Your task to perform on an android device: toggle wifi Image 0: 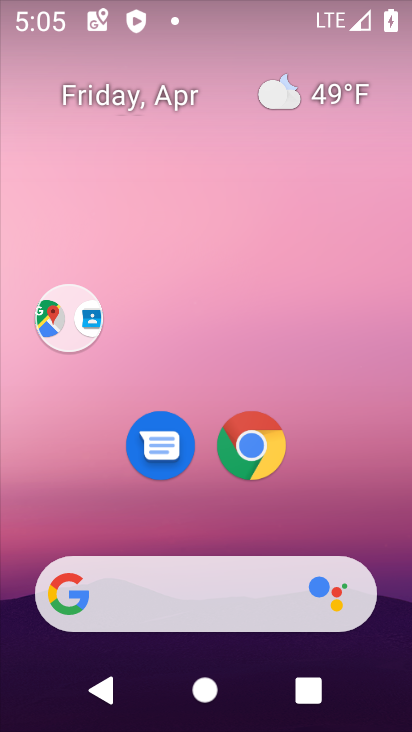
Step 0: drag from (331, 478) to (353, 86)
Your task to perform on an android device: toggle wifi Image 1: 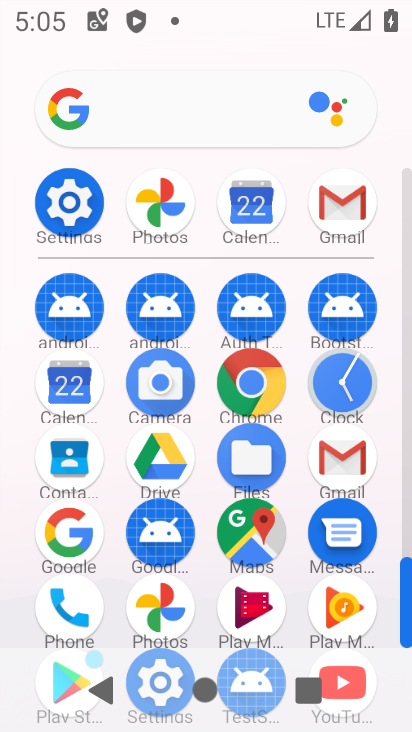
Step 1: drag from (198, 573) to (214, 373)
Your task to perform on an android device: toggle wifi Image 2: 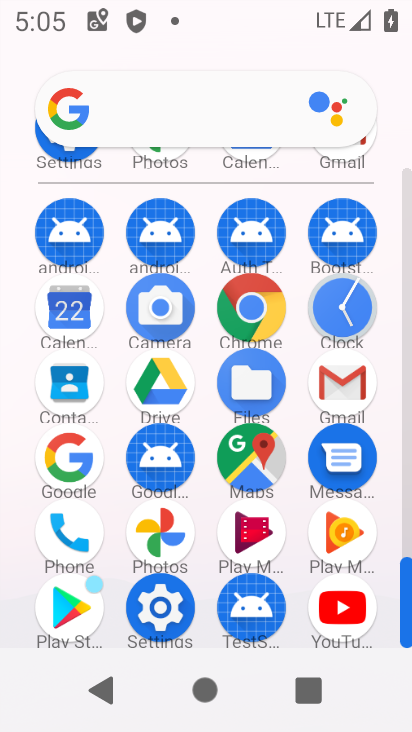
Step 2: click (166, 616)
Your task to perform on an android device: toggle wifi Image 3: 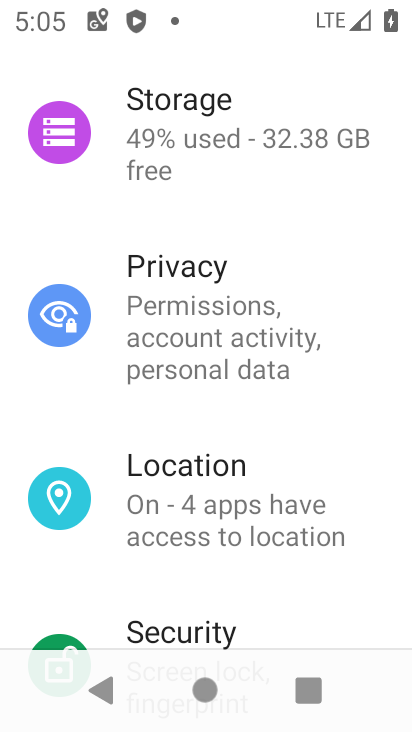
Step 3: drag from (273, 204) to (194, 556)
Your task to perform on an android device: toggle wifi Image 4: 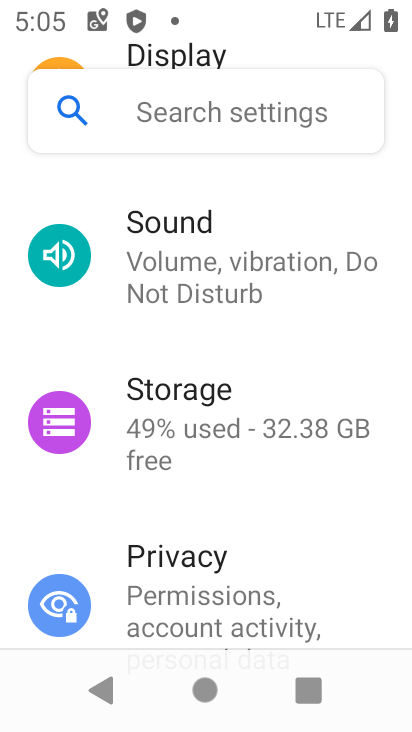
Step 4: drag from (231, 271) to (223, 495)
Your task to perform on an android device: toggle wifi Image 5: 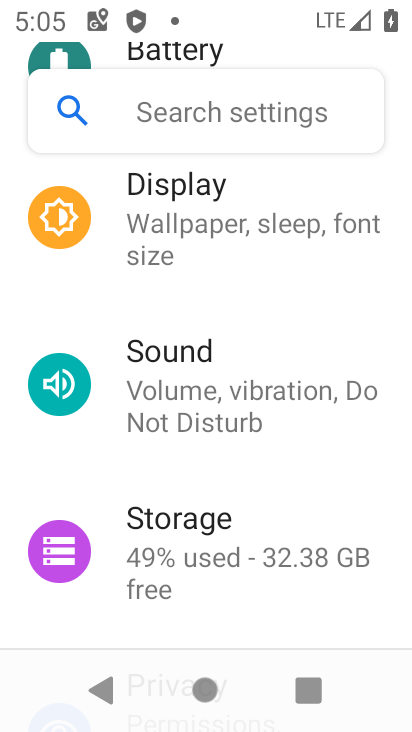
Step 5: drag from (269, 186) to (244, 438)
Your task to perform on an android device: toggle wifi Image 6: 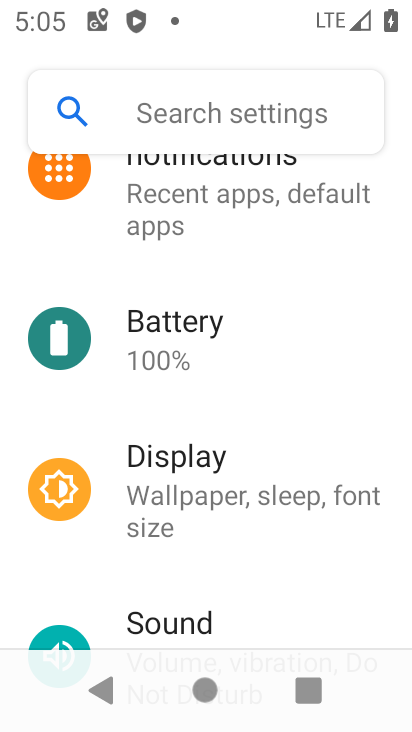
Step 6: drag from (233, 223) to (213, 455)
Your task to perform on an android device: toggle wifi Image 7: 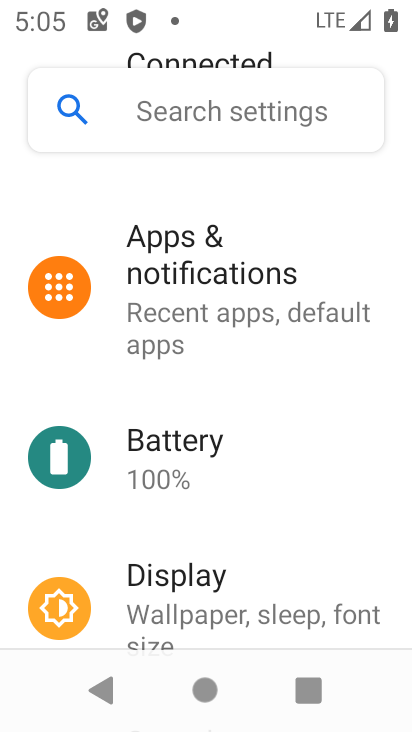
Step 7: drag from (250, 211) to (227, 529)
Your task to perform on an android device: toggle wifi Image 8: 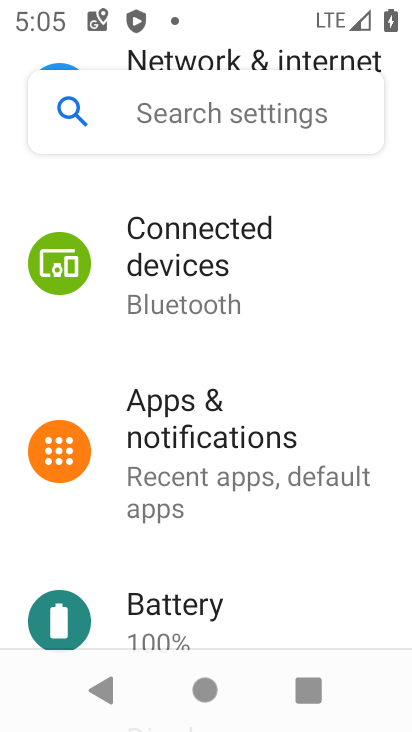
Step 8: drag from (284, 230) to (202, 580)
Your task to perform on an android device: toggle wifi Image 9: 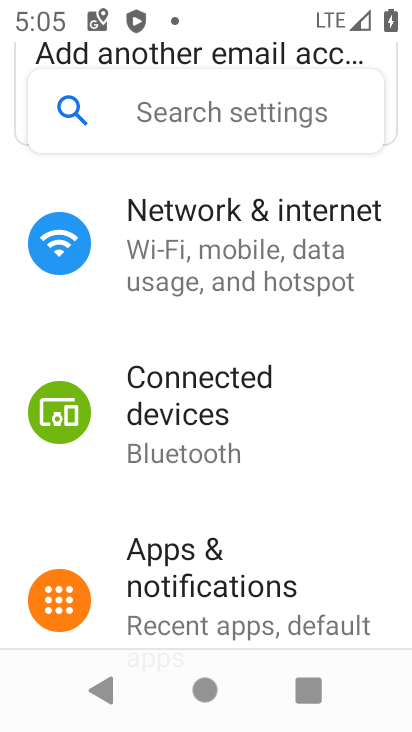
Step 9: click (205, 266)
Your task to perform on an android device: toggle wifi Image 10: 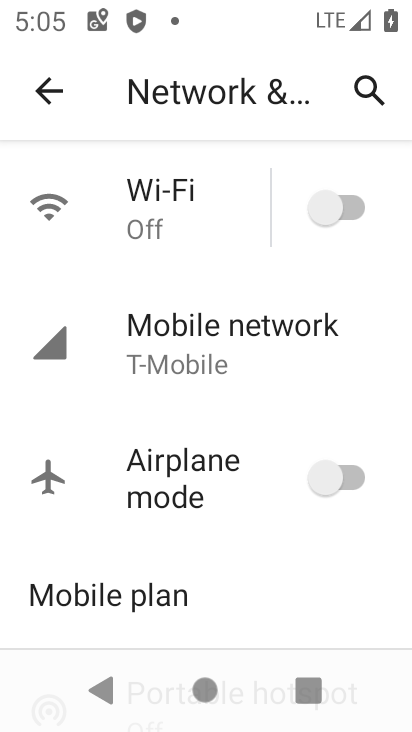
Step 10: click (178, 212)
Your task to perform on an android device: toggle wifi Image 11: 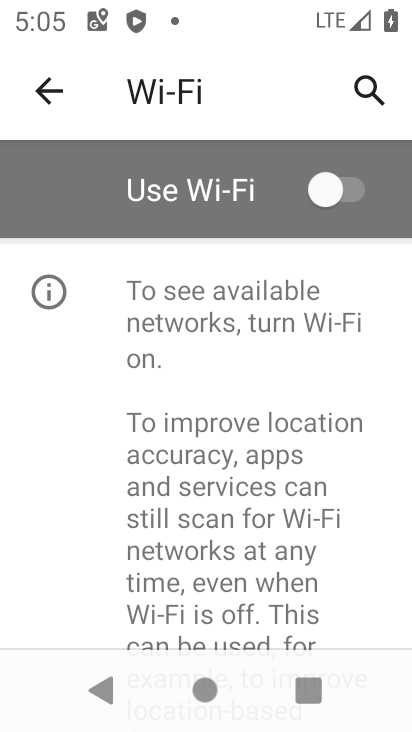
Step 11: click (315, 184)
Your task to perform on an android device: toggle wifi Image 12: 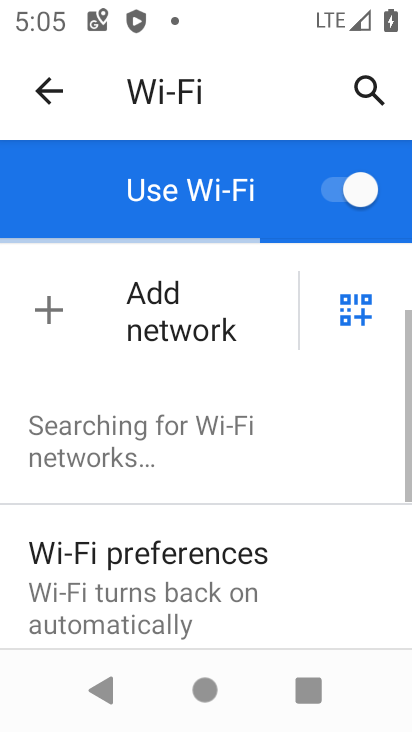
Step 12: task complete